Your task to perform on an android device: change the clock style Image 0: 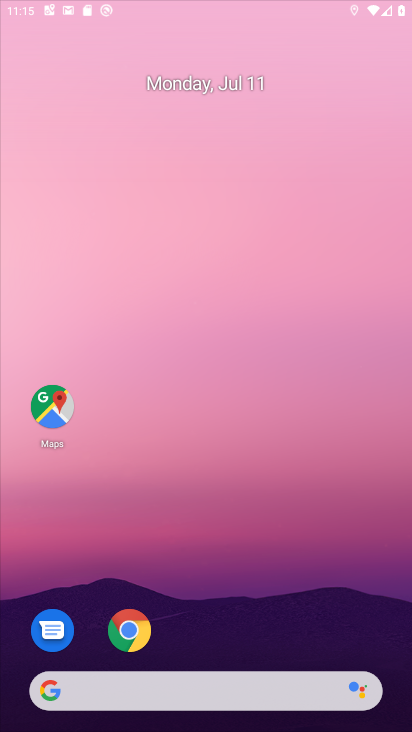
Step 0: drag from (242, 662) to (305, 175)
Your task to perform on an android device: change the clock style Image 1: 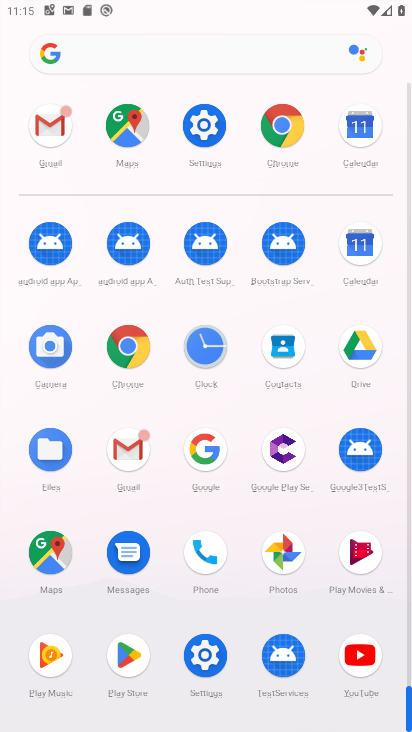
Step 1: drag from (241, 469) to (254, 372)
Your task to perform on an android device: change the clock style Image 2: 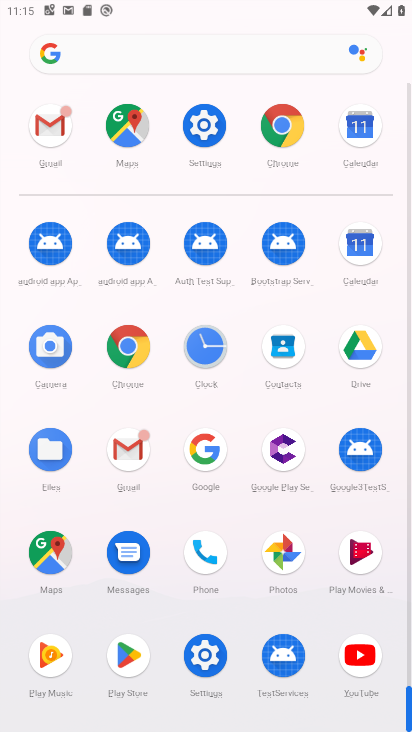
Step 2: click (194, 354)
Your task to perform on an android device: change the clock style Image 3: 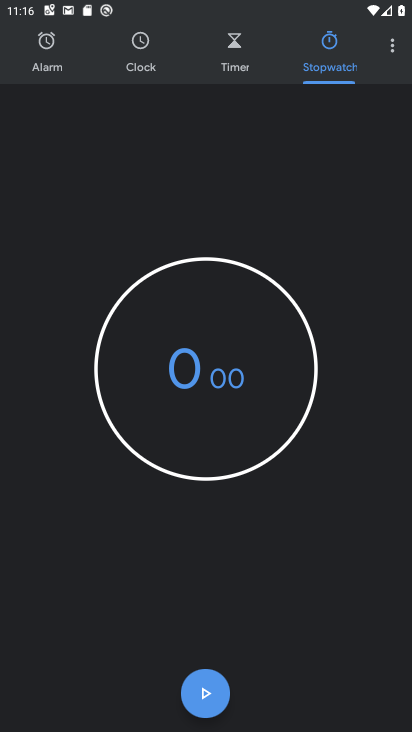
Step 3: click (393, 51)
Your task to perform on an android device: change the clock style Image 4: 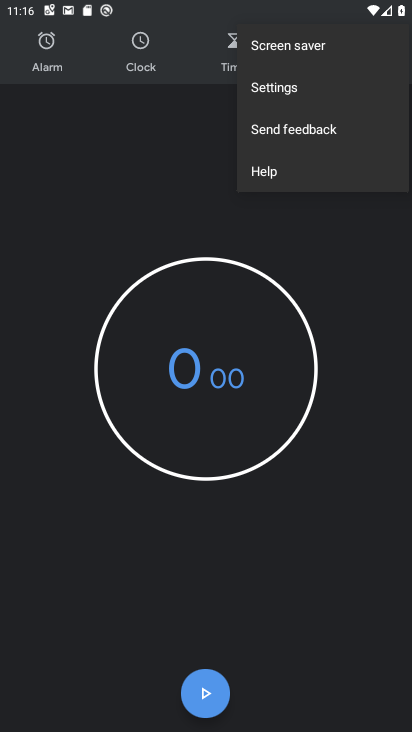
Step 4: click (305, 92)
Your task to perform on an android device: change the clock style Image 5: 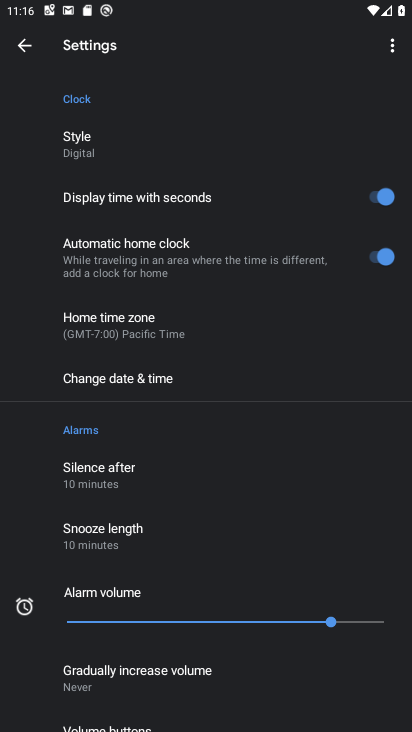
Step 5: click (107, 153)
Your task to perform on an android device: change the clock style Image 6: 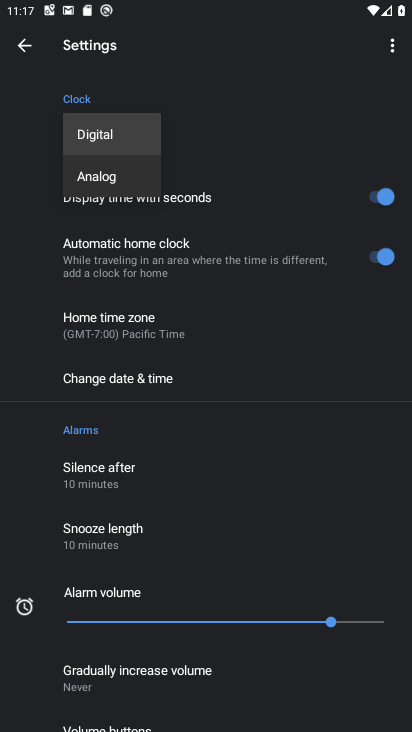
Step 6: click (127, 175)
Your task to perform on an android device: change the clock style Image 7: 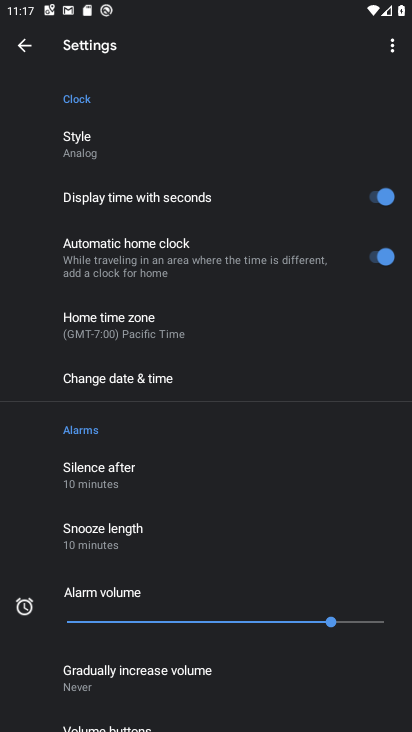
Step 7: task complete